Your task to perform on an android device: Add lg ultragear to the cart on ebay.com, then select checkout. Image 0: 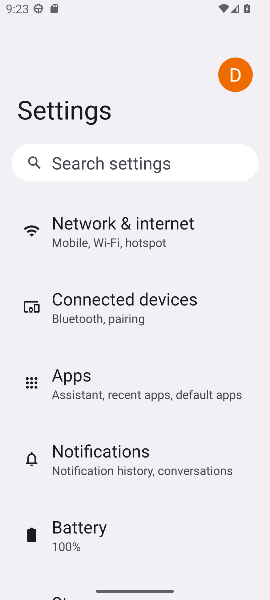
Step 0: press home button
Your task to perform on an android device: Add lg ultragear to the cart on ebay.com, then select checkout. Image 1: 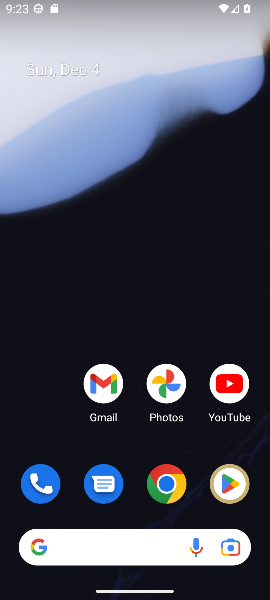
Step 1: click (158, 490)
Your task to perform on an android device: Add lg ultragear to the cart on ebay.com, then select checkout. Image 2: 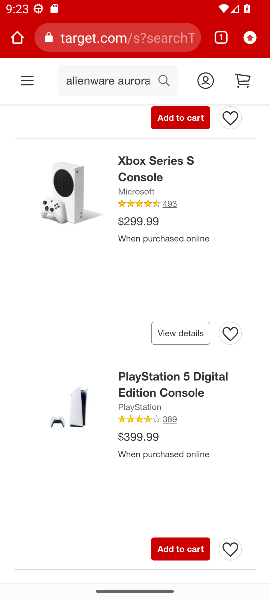
Step 2: click (112, 39)
Your task to perform on an android device: Add lg ultragear to the cart on ebay.com, then select checkout. Image 3: 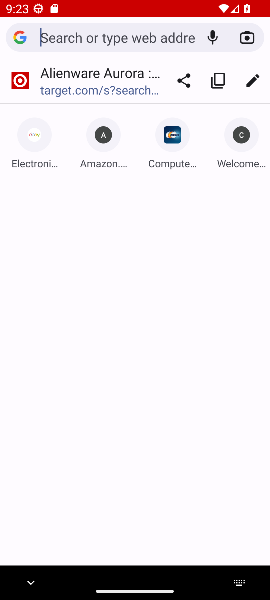
Step 3: type "ebay.com"
Your task to perform on an android device: Add lg ultragear to the cart on ebay.com, then select checkout. Image 4: 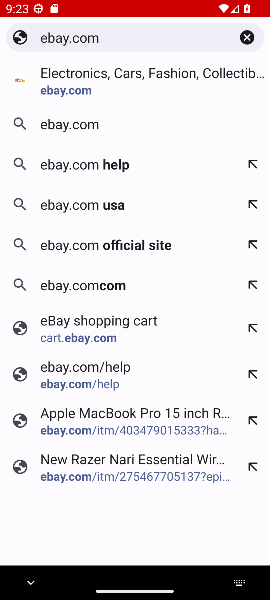
Step 4: click (64, 95)
Your task to perform on an android device: Add lg ultragear to the cart on ebay.com, then select checkout. Image 5: 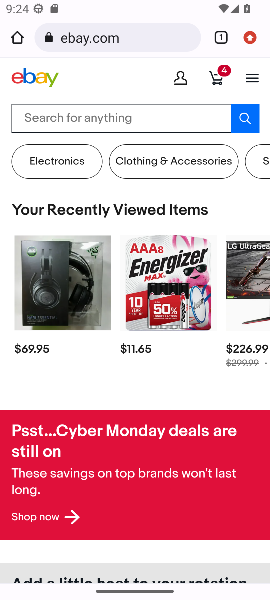
Step 5: click (72, 113)
Your task to perform on an android device: Add lg ultragear to the cart on ebay.com, then select checkout. Image 6: 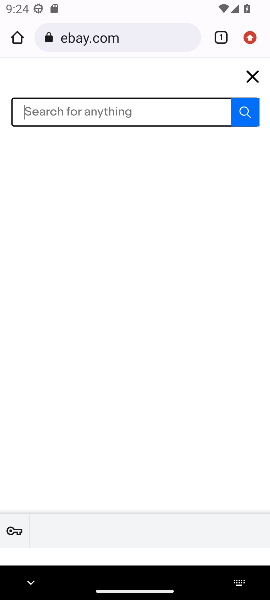
Step 6: type "lg ultragear"
Your task to perform on an android device: Add lg ultragear to the cart on ebay.com, then select checkout. Image 7: 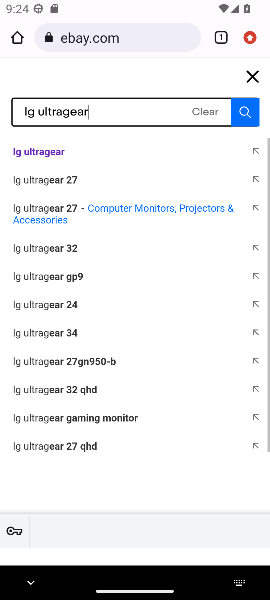
Step 7: click (51, 154)
Your task to perform on an android device: Add lg ultragear to the cart on ebay.com, then select checkout. Image 8: 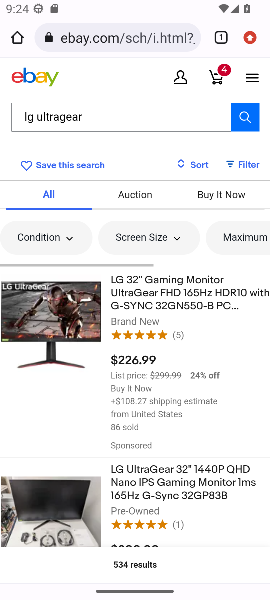
Step 8: click (143, 292)
Your task to perform on an android device: Add lg ultragear to the cart on ebay.com, then select checkout. Image 9: 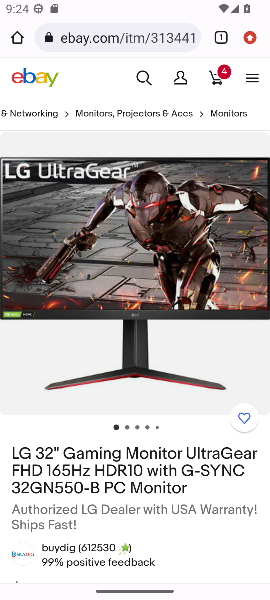
Step 9: drag from (163, 472) to (163, 231)
Your task to perform on an android device: Add lg ultragear to the cart on ebay.com, then select checkout. Image 10: 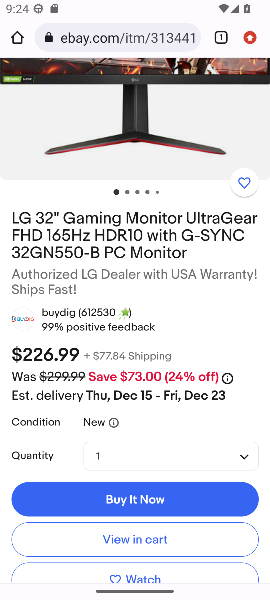
Step 10: drag from (146, 433) to (131, 290)
Your task to perform on an android device: Add lg ultragear to the cart on ebay.com, then select checkout. Image 11: 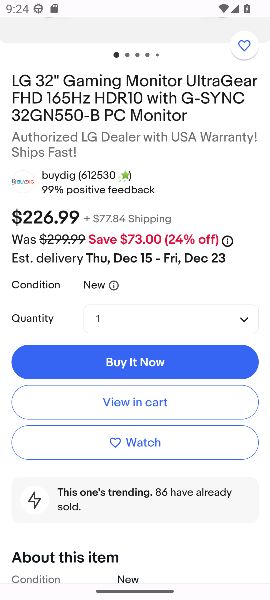
Step 11: click (128, 403)
Your task to perform on an android device: Add lg ultragear to the cart on ebay.com, then select checkout. Image 12: 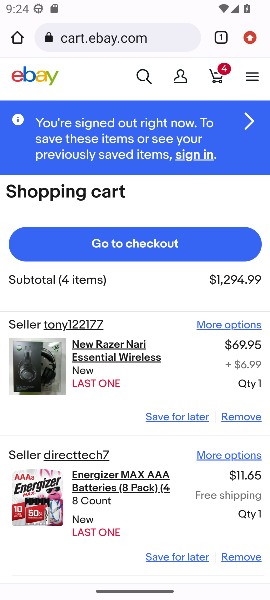
Step 12: click (136, 249)
Your task to perform on an android device: Add lg ultragear to the cart on ebay.com, then select checkout. Image 13: 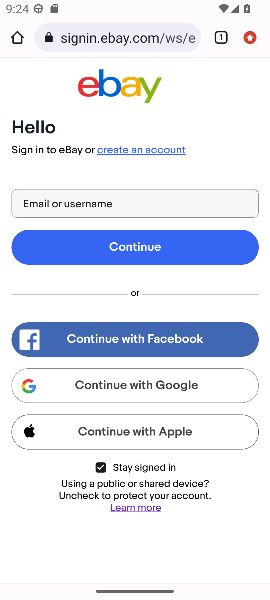
Step 13: task complete